Your task to perform on an android device: open the mobile data screen to see how much data has been used Image 0: 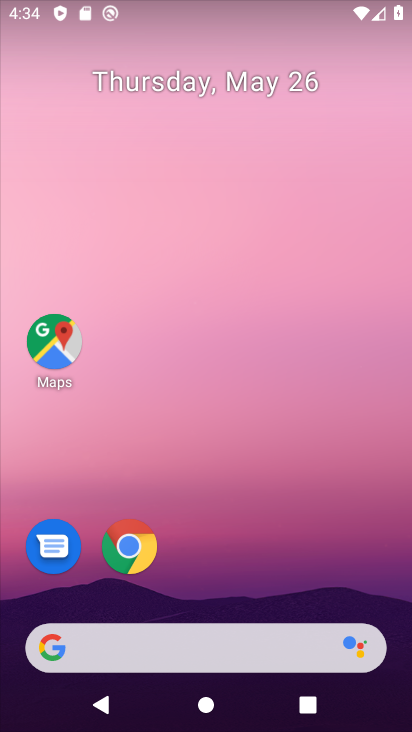
Step 0: drag from (260, 581) to (206, 232)
Your task to perform on an android device: open the mobile data screen to see how much data has been used Image 1: 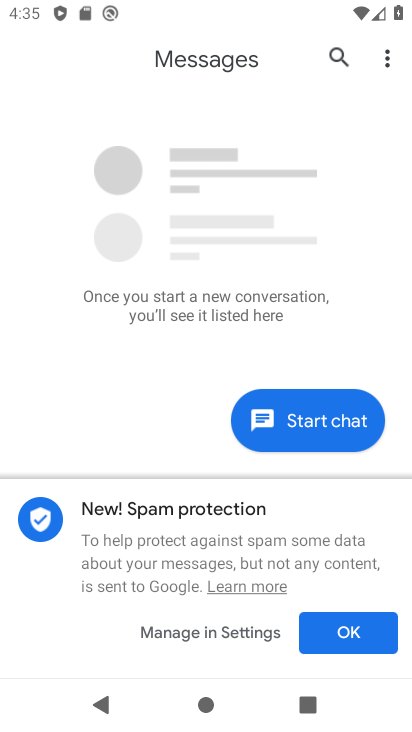
Step 1: press home button
Your task to perform on an android device: open the mobile data screen to see how much data has been used Image 2: 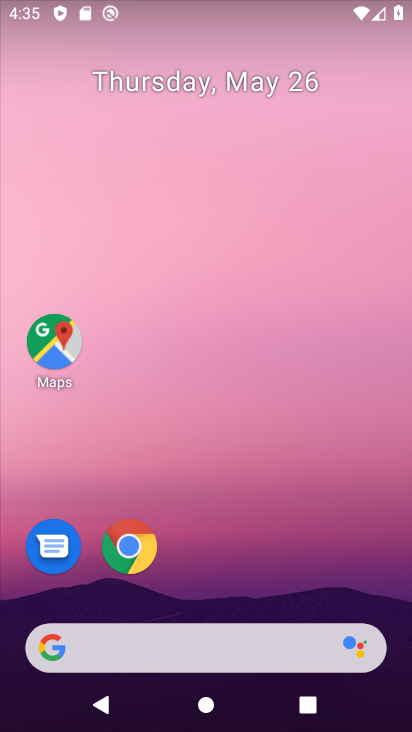
Step 2: drag from (255, 589) to (199, 174)
Your task to perform on an android device: open the mobile data screen to see how much data has been used Image 3: 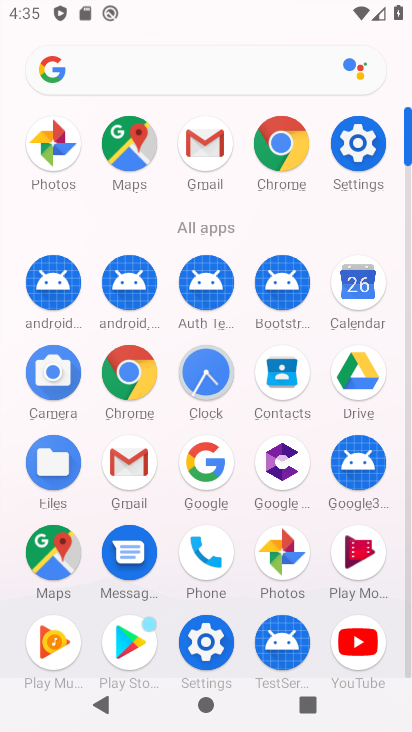
Step 3: click (364, 149)
Your task to perform on an android device: open the mobile data screen to see how much data has been used Image 4: 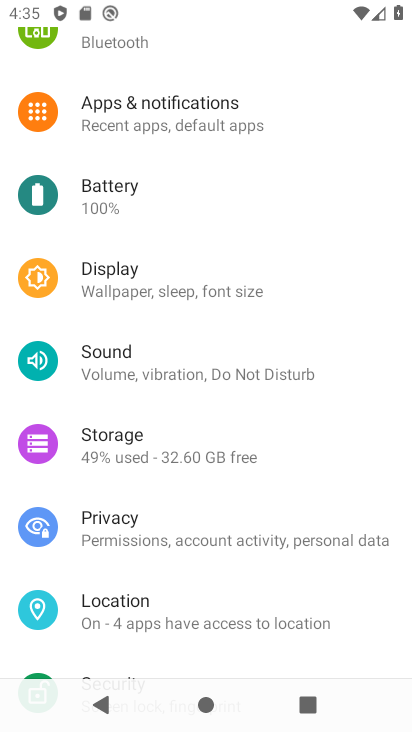
Step 4: drag from (225, 62) to (230, 459)
Your task to perform on an android device: open the mobile data screen to see how much data has been used Image 5: 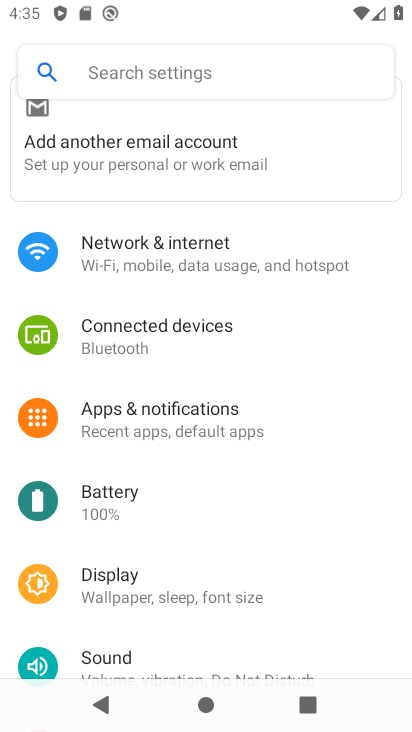
Step 5: click (193, 272)
Your task to perform on an android device: open the mobile data screen to see how much data has been used Image 6: 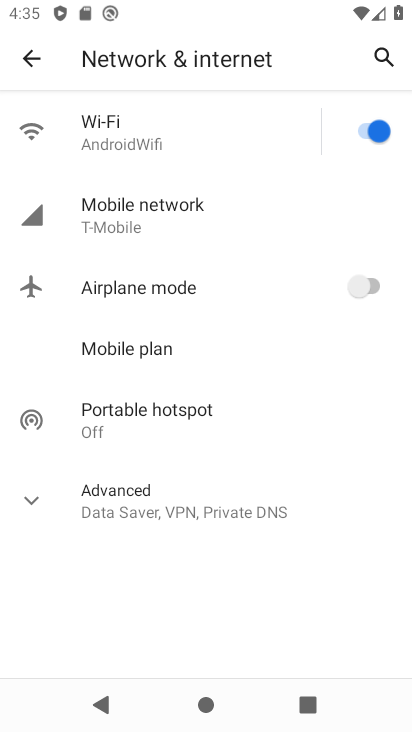
Step 6: click (177, 222)
Your task to perform on an android device: open the mobile data screen to see how much data has been used Image 7: 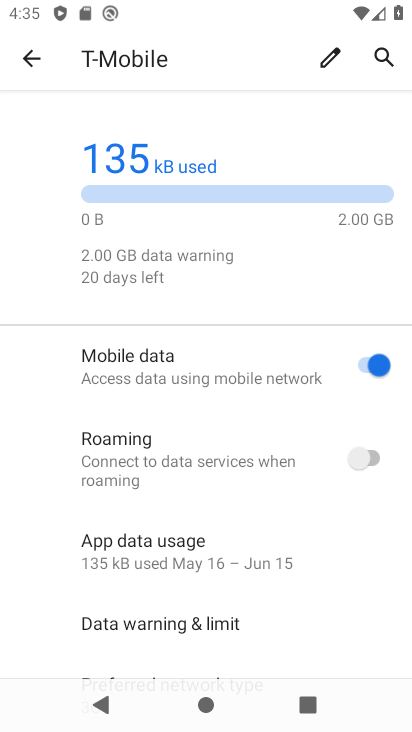
Step 7: task complete